Your task to perform on an android device: toggle pop-ups in chrome Image 0: 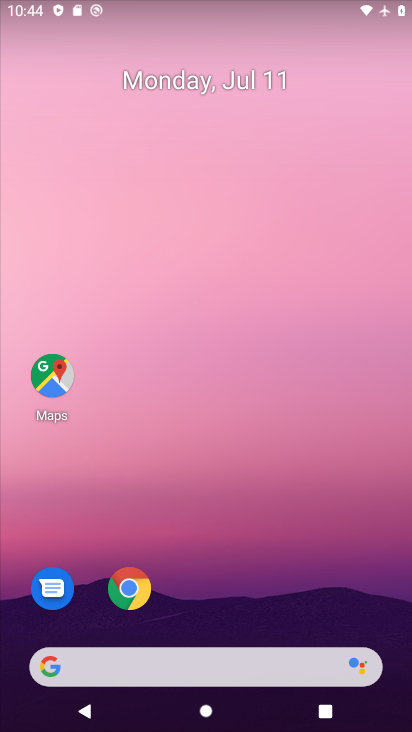
Step 0: click (130, 590)
Your task to perform on an android device: toggle pop-ups in chrome Image 1: 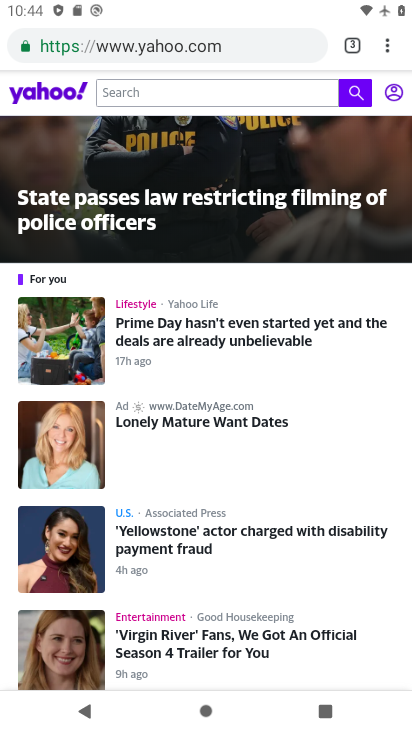
Step 1: drag from (389, 38) to (298, 543)
Your task to perform on an android device: toggle pop-ups in chrome Image 2: 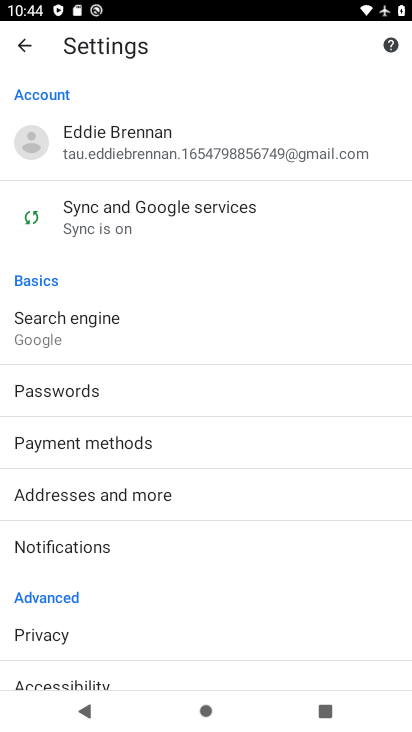
Step 2: drag from (198, 584) to (240, 452)
Your task to perform on an android device: toggle pop-ups in chrome Image 3: 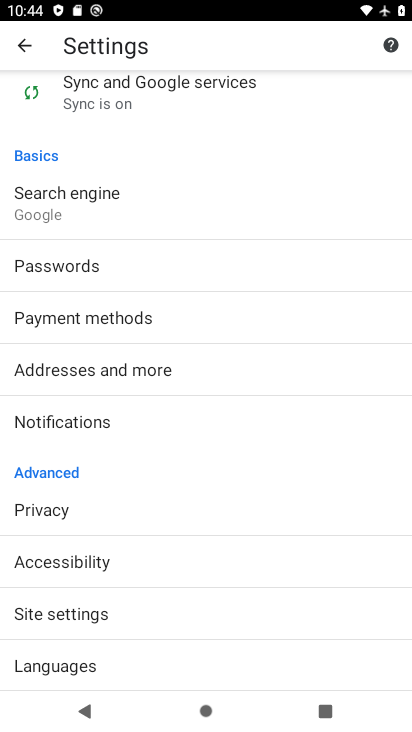
Step 3: click (67, 616)
Your task to perform on an android device: toggle pop-ups in chrome Image 4: 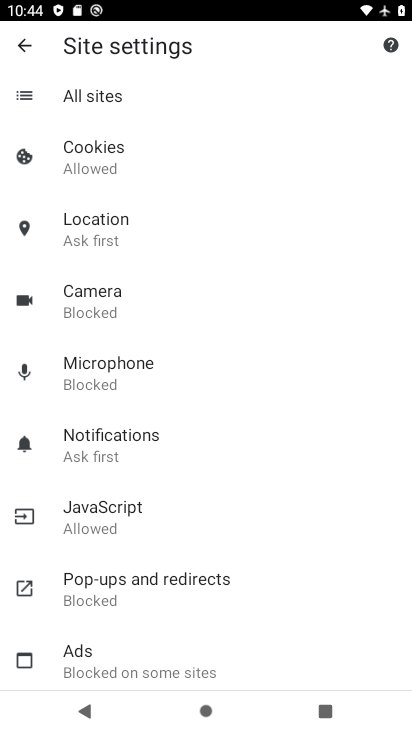
Step 4: click (150, 588)
Your task to perform on an android device: toggle pop-ups in chrome Image 5: 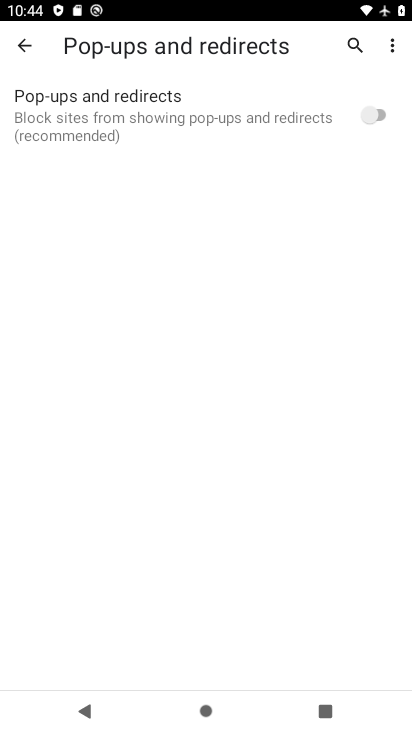
Step 5: click (379, 113)
Your task to perform on an android device: toggle pop-ups in chrome Image 6: 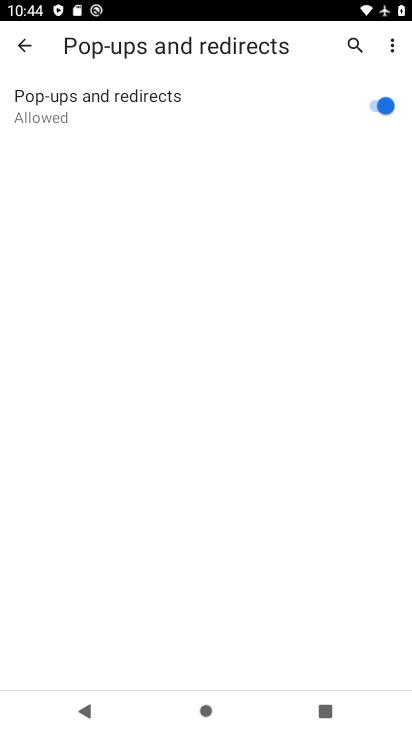
Step 6: task complete